Your task to perform on an android device: Open Google Maps and go to "Timeline" Image 0: 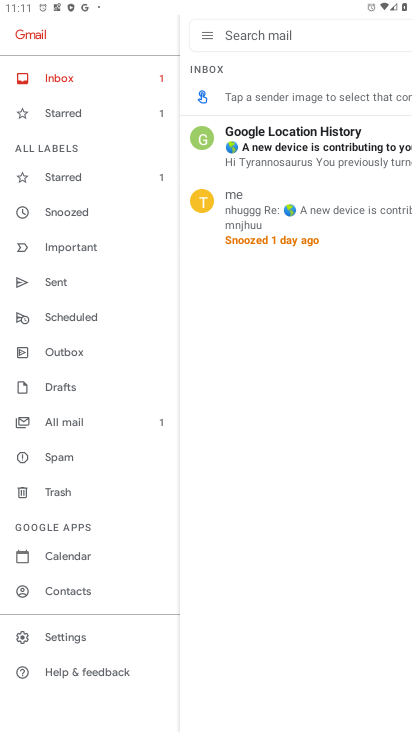
Step 0: press home button
Your task to perform on an android device: Open Google Maps and go to "Timeline" Image 1: 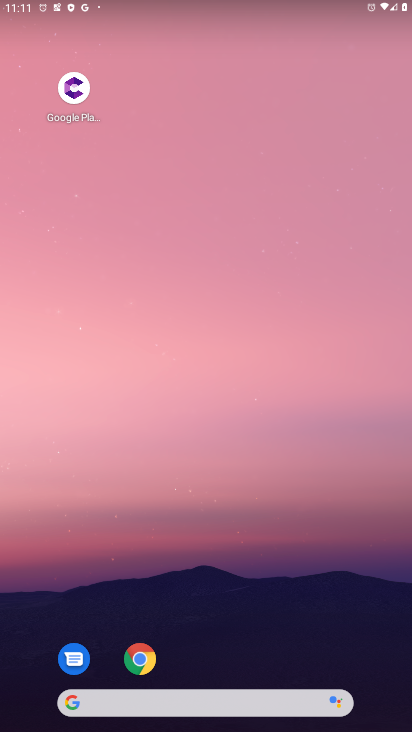
Step 1: drag from (180, 708) to (152, 223)
Your task to perform on an android device: Open Google Maps and go to "Timeline" Image 2: 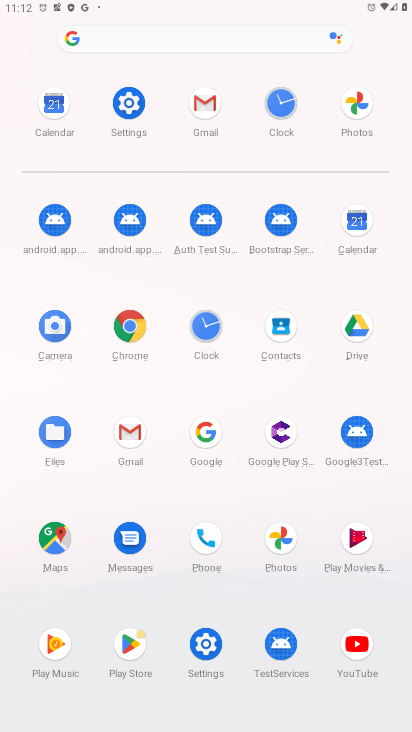
Step 2: click (54, 540)
Your task to perform on an android device: Open Google Maps and go to "Timeline" Image 3: 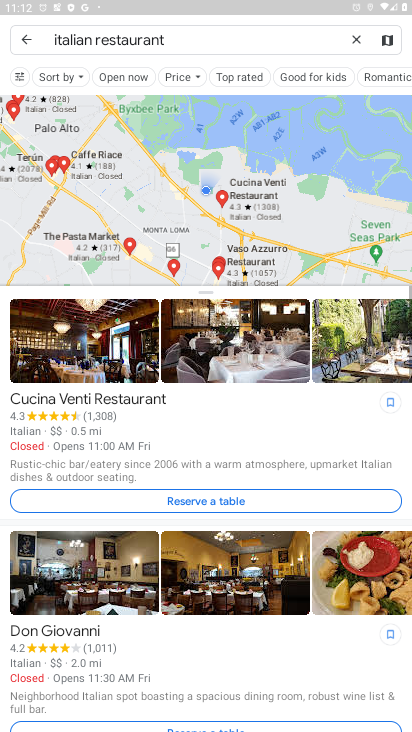
Step 3: press back button
Your task to perform on an android device: Open Google Maps and go to "Timeline" Image 4: 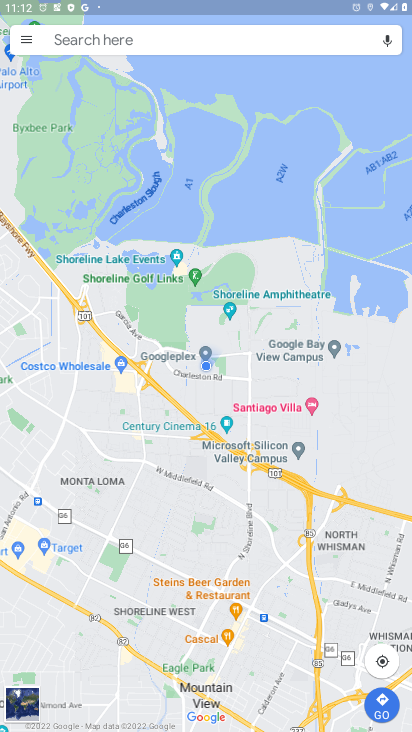
Step 4: click (27, 40)
Your task to perform on an android device: Open Google Maps and go to "Timeline" Image 5: 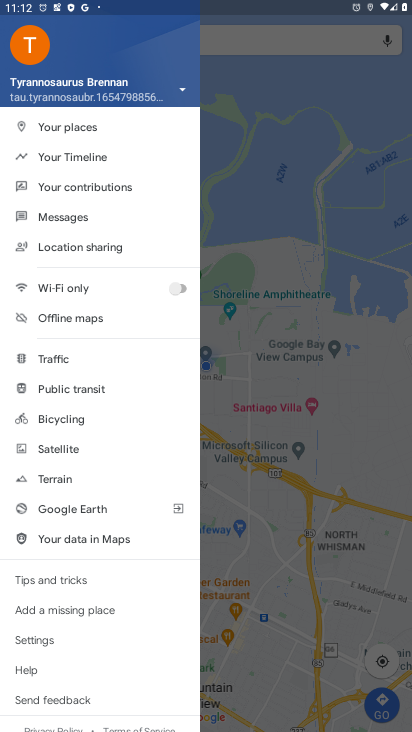
Step 5: click (75, 160)
Your task to perform on an android device: Open Google Maps and go to "Timeline" Image 6: 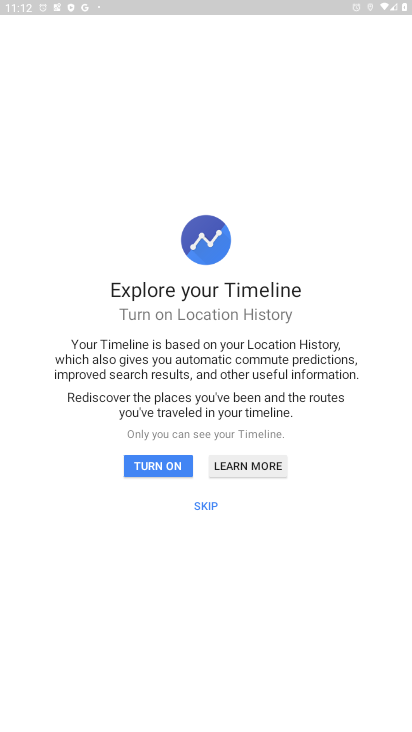
Step 6: click (205, 502)
Your task to perform on an android device: Open Google Maps and go to "Timeline" Image 7: 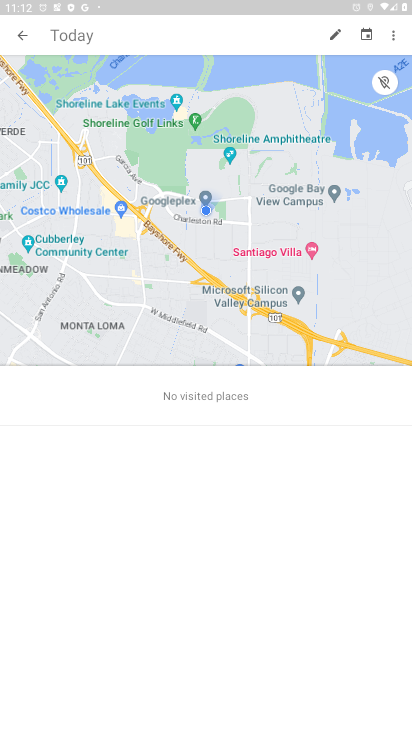
Step 7: task complete